Your task to perform on an android device: Open CNN.com Image 0: 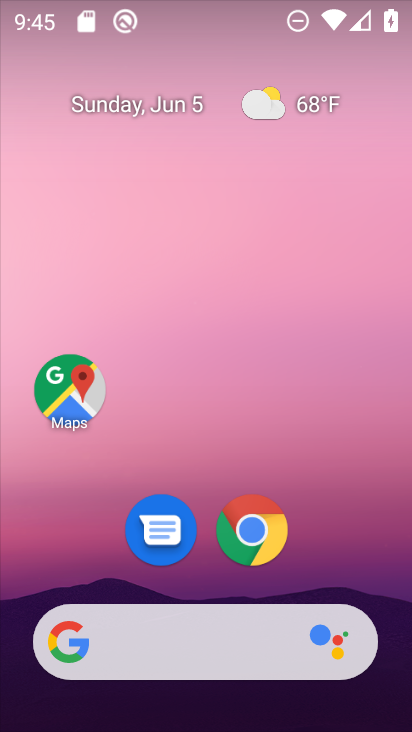
Step 0: click (254, 528)
Your task to perform on an android device: Open CNN.com Image 1: 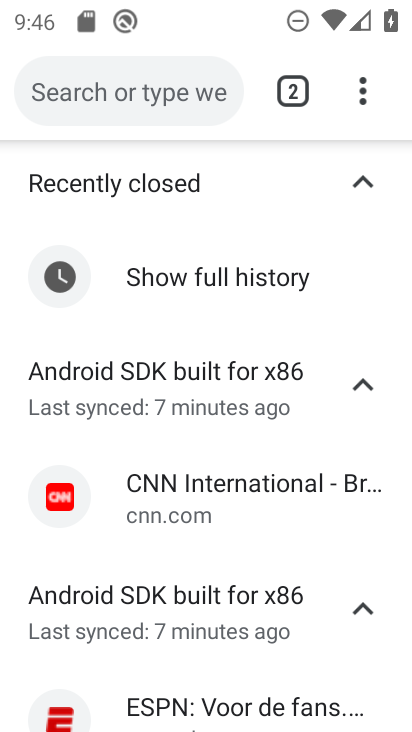
Step 1: click (145, 99)
Your task to perform on an android device: Open CNN.com Image 2: 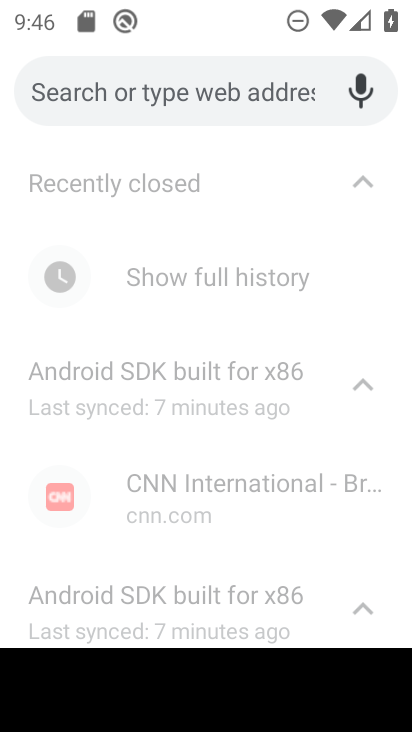
Step 2: type "cnn.com"
Your task to perform on an android device: Open CNN.com Image 3: 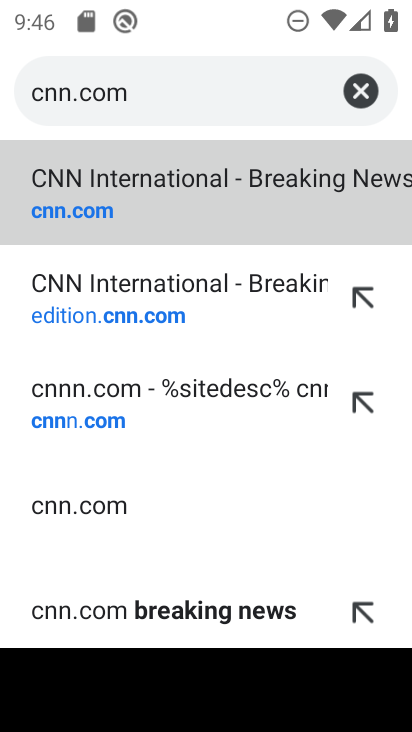
Step 3: click (134, 182)
Your task to perform on an android device: Open CNN.com Image 4: 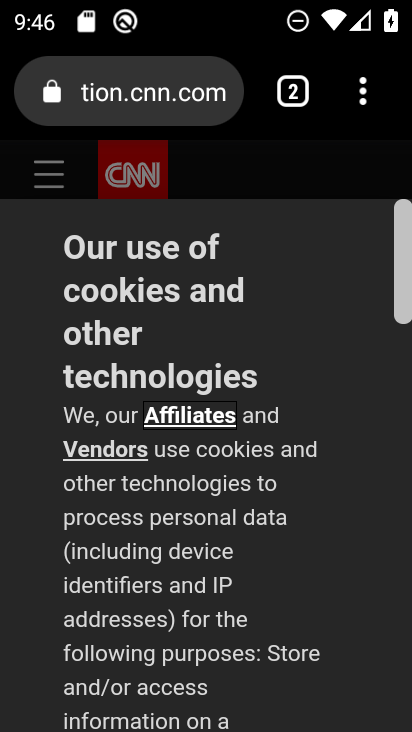
Step 4: task complete